Your task to perform on an android device: Go to Google maps Image 0: 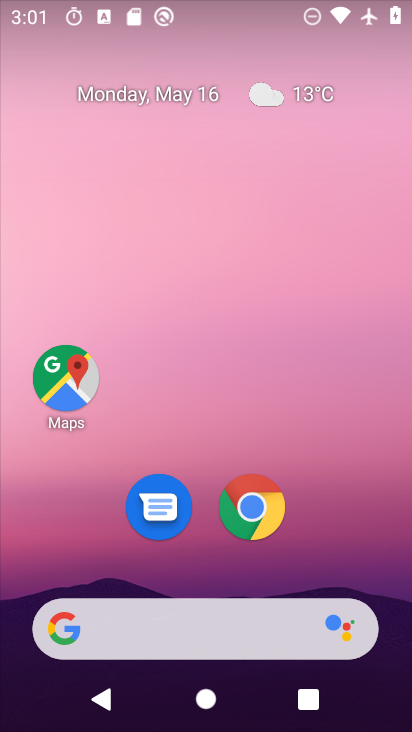
Step 0: drag from (242, 555) to (232, 146)
Your task to perform on an android device: Go to Google maps Image 1: 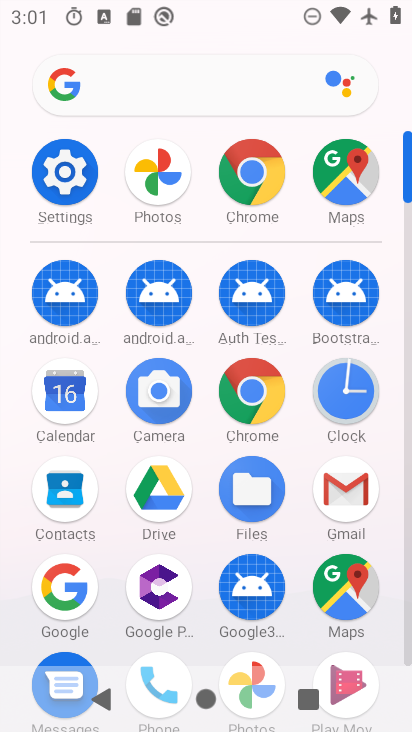
Step 1: drag from (210, 448) to (247, 166)
Your task to perform on an android device: Go to Google maps Image 2: 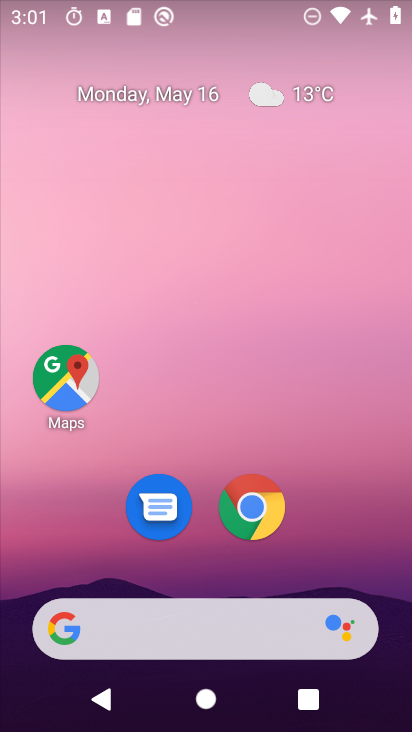
Step 2: click (343, 597)
Your task to perform on an android device: Go to Google maps Image 3: 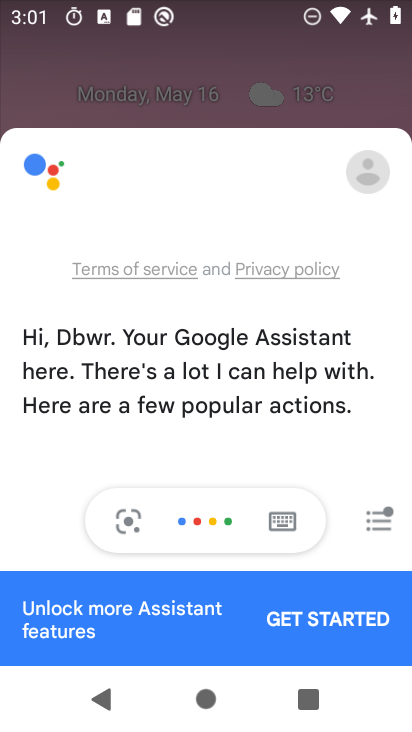
Step 3: press back button
Your task to perform on an android device: Go to Google maps Image 4: 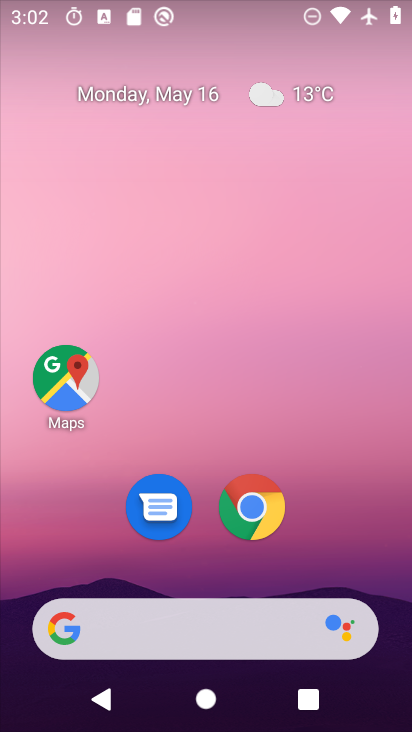
Step 4: drag from (252, 575) to (336, 122)
Your task to perform on an android device: Go to Google maps Image 5: 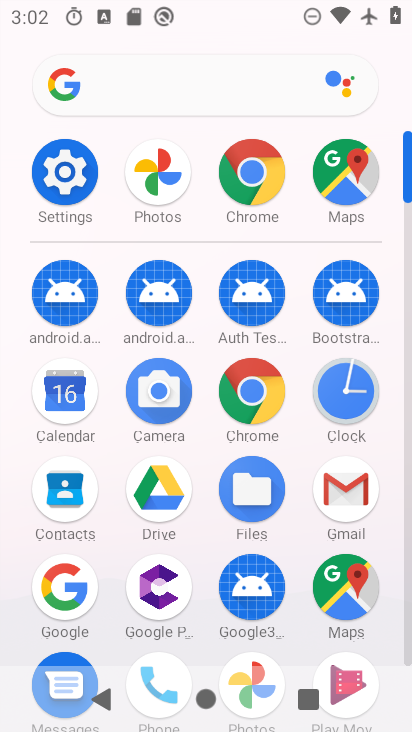
Step 5: click (351, 590)
Your task to perform on an android device: Go to Google maps Image 6: 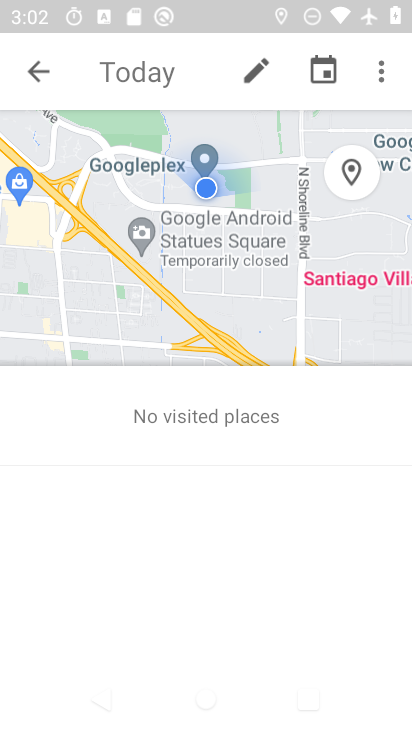
Step 6: task complete